Your task to perform on an android device: Open calendar and show me the fourth week of next month Image 0: 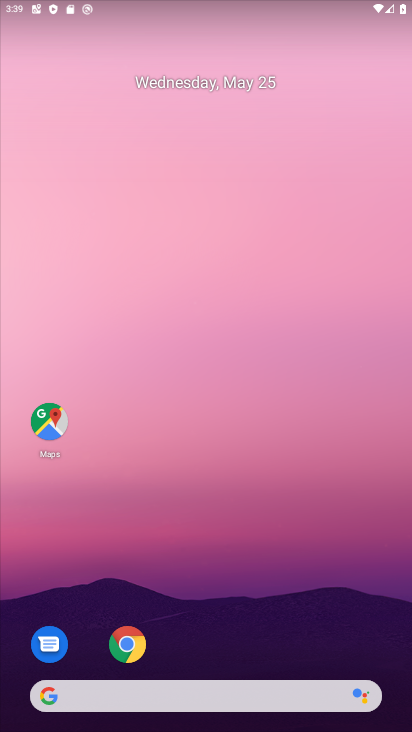
Step 0: drag from (291, 658) to (318, 15)
Your task to perform on an android device: Open calendar and show me the fourth week of next month Image 1: 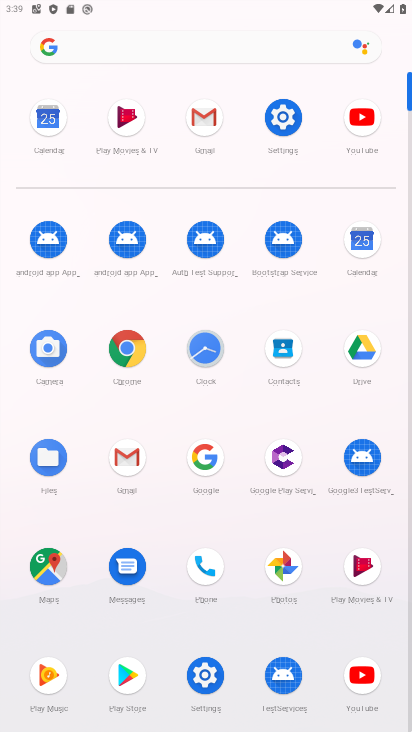
Step 1: click (51, 121)
Your task to perform on an android device: Open calendar and show me the fourth week of next month Image 2: 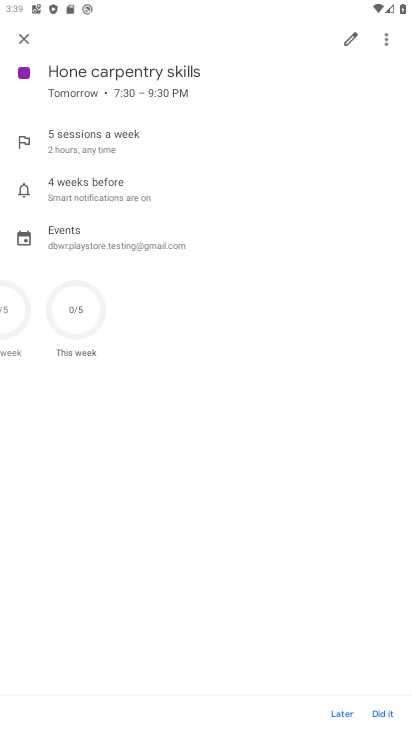
Step 2: click (28, 43)
Your task to perform on an android device: Open calendar and show me the fourth week of next month Image 3: 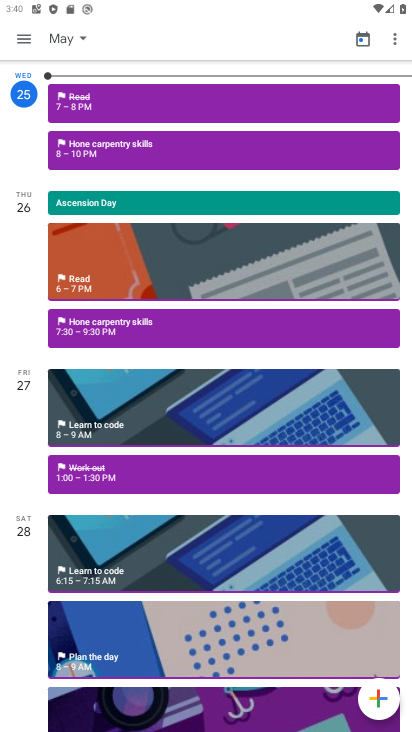
Step 3: click (80, 36)
Your task to perform on an android device: Open calendar and show me the fourth week of next month Image 4: 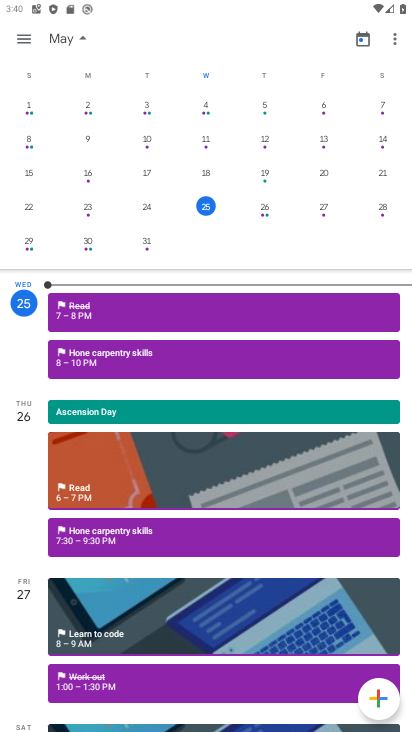
Step 4: drag from (313, 183) to (67, 248)
Your task to perform on an android device: Open calendar and show me the fourth week of next month Image 5: 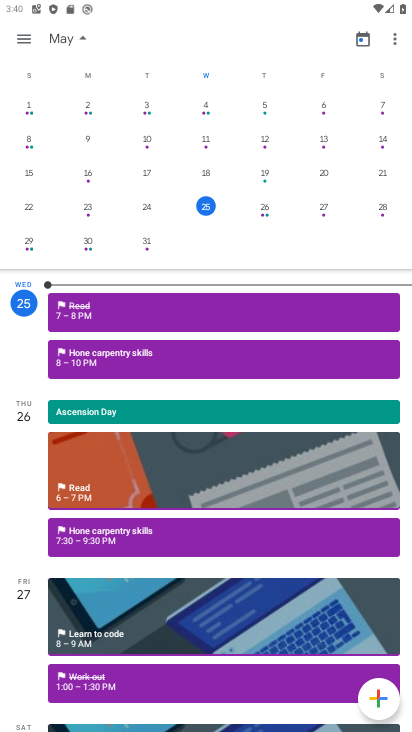
Step 5: drag from (308, 143) to (7, 85)
Your task to perform on an android device: Open calendar and show me the fourth week of next month Image 6: 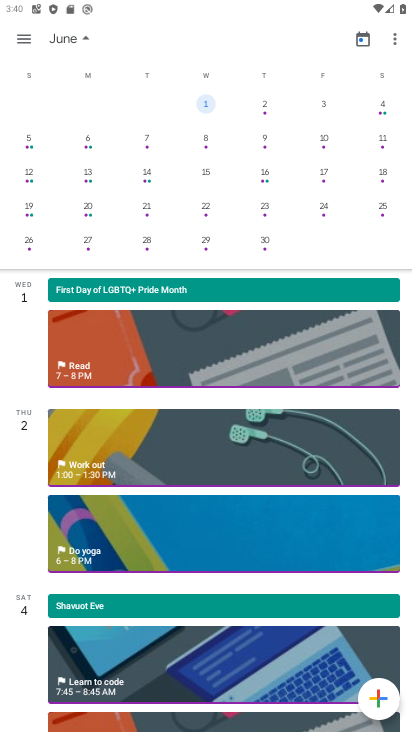
Step 6: click (21, 41)
Your task to perform on an android device: Open calendar and show me the fourth week of next month Image 7: 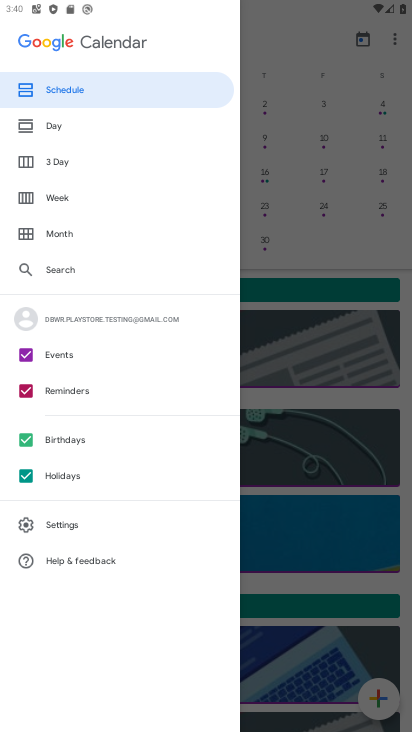
Step 7: click (59, 197)
Your task to perform on an android device: Open calendar and show me the fourth week of next month Image 8: 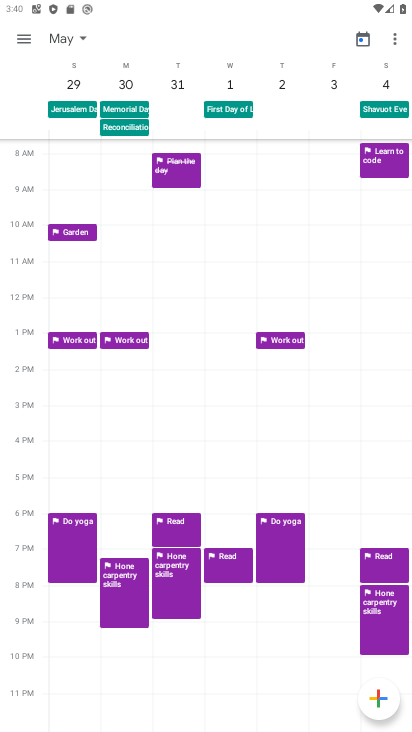
Step 8: task complete